Your task to perform on an android device: toggle notifications settings in the gmail app Image 0: 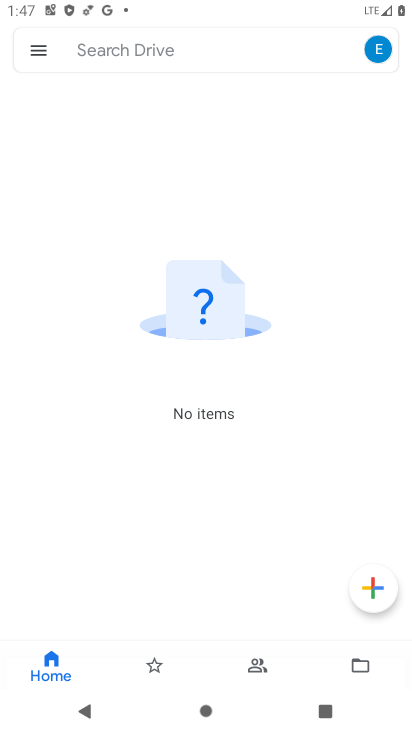
Step 0: press home button
Your task to perform on an android device: toggle notifications settings in the gmail app Image 1: 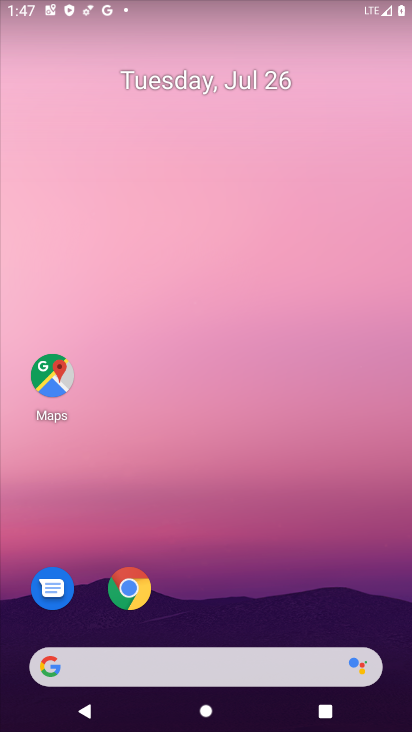
Step 1: drag from (193, 654) to (316, 19)
Your task to perform on an android device: toggle notifications settings in the gmail app Image 2: 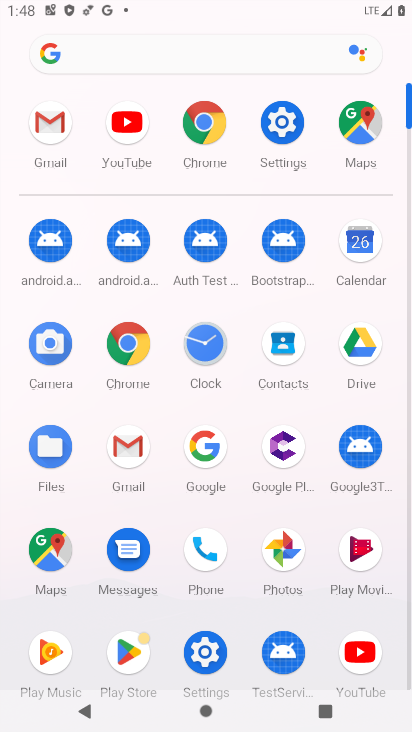
Step 2: click (125, 438)
Your task to perform on an android device: toggle notifications settings in the gmail app Image 3: 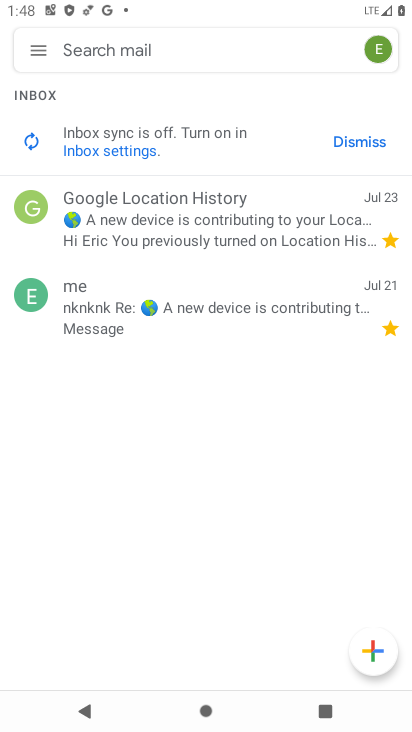
Step 3: click (38, 56)
Your task to perform on an android device: toggle notifications settings in the gmail app Image 4: 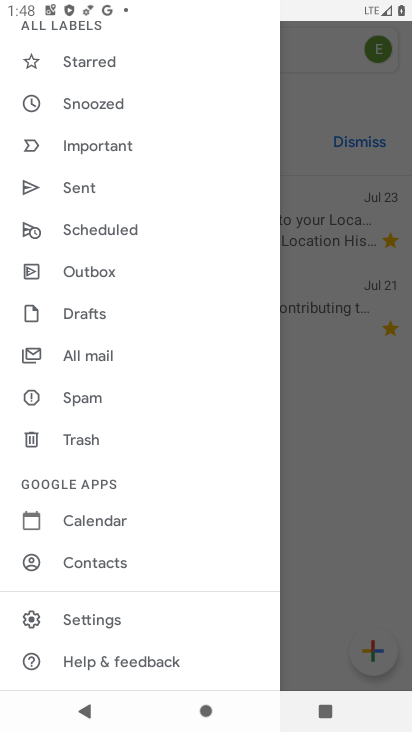
Step 4: click (96, 623)
Your task to perform on an android device: toggle notifications settings in the gmail app Image 5: 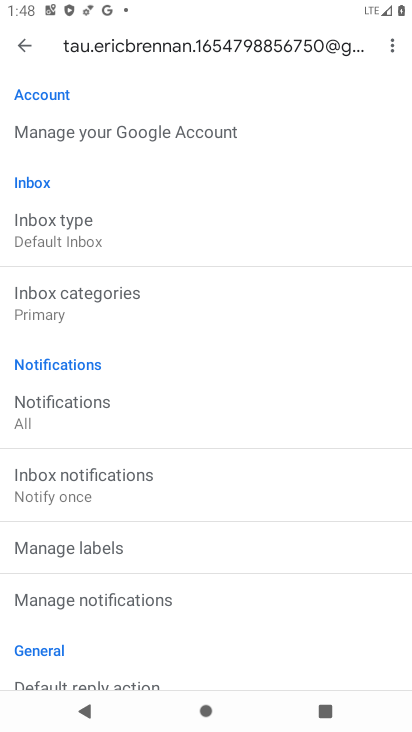
Step 5: click (19, 51)
Your task to perform on an android device: toggle notifications settings in the gmail app Image 6: 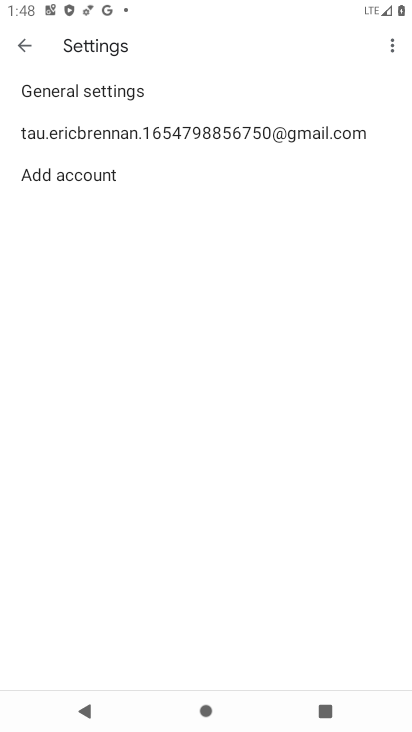
Step 6: click (94, 91)
Your task to perform on an android device: toggle notifications settings in the gmail app Image 7: 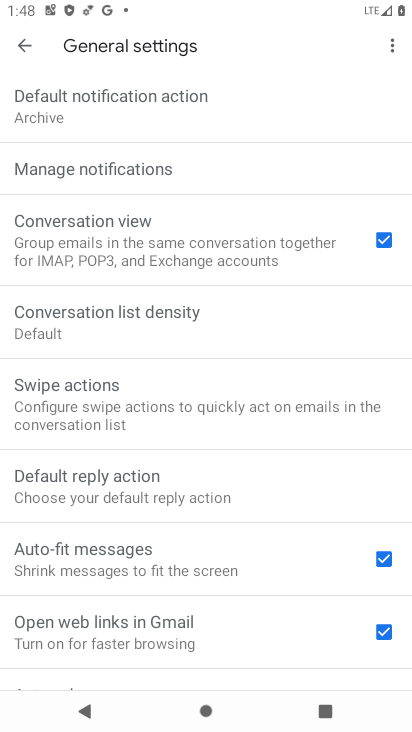
Step 7: click (106, 167)
Your task to perform on an android device: toggle notifications settings in the gmail app Image 8: 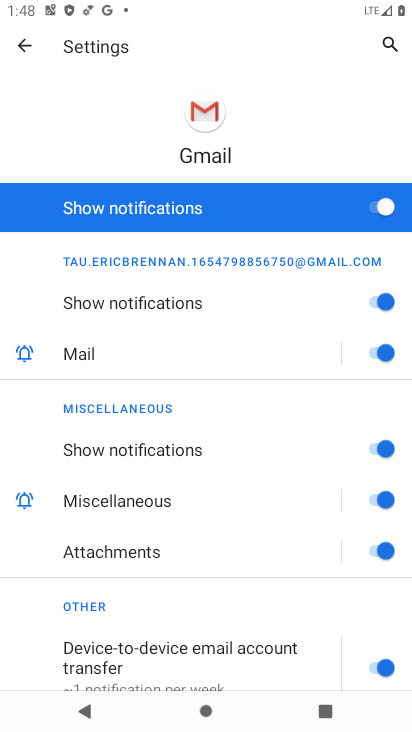
Step 8: click (366, 203)
Your task to perform on an android device: toggle notifications settings in the gmail app Image 9: 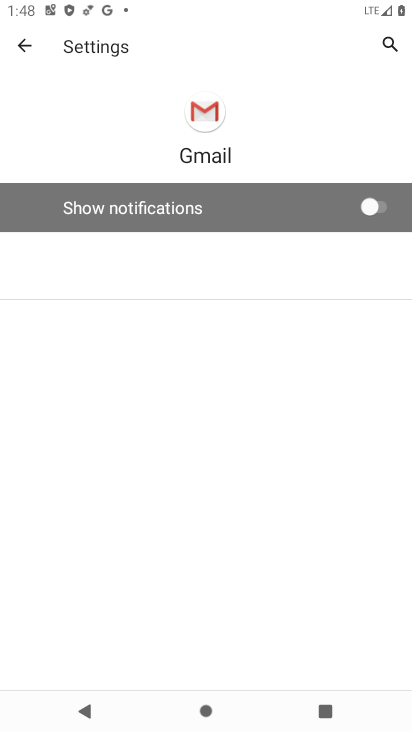
Step 9: task complete